Your task to perform on an android device: Open Reddit.com Image 0: 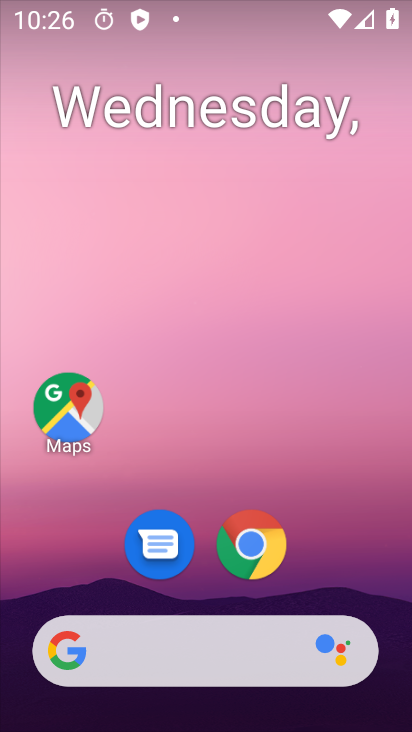
Step 0: drag from (295, 668) to (231, 122)
Your task to perform on an android device: Open Reddit.com Image 1: 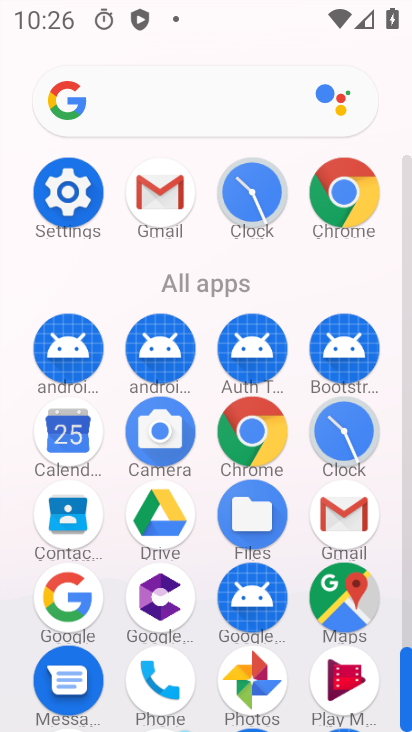
Step 1: click (333, 195)
Your task to perform on an android device: Open Reddit.com Image 2: 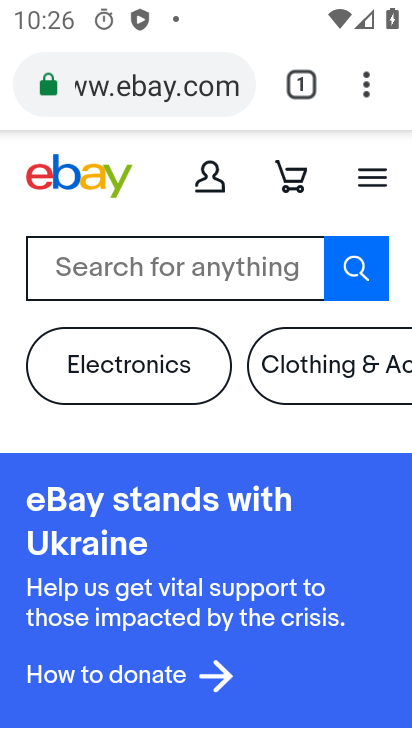
Step 2: click (173, 105)
Your task to perform on an android device: Open Reddit.com Image 3: 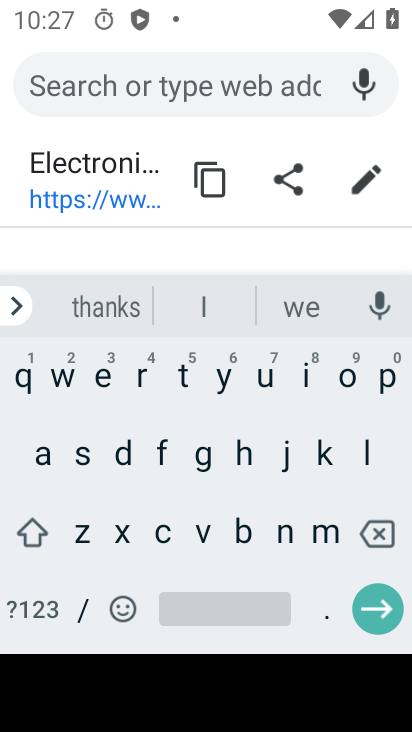
Step 3: click (143, 371)
Your task to perform on an android device: Open Reddit.com Image 4: 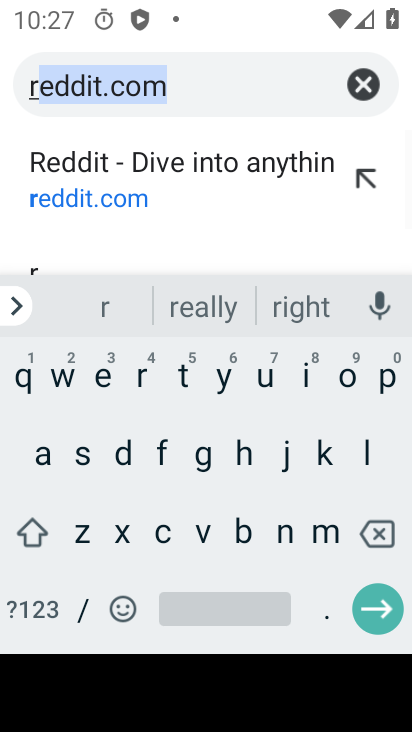
Step 4: click (217, 97)
Your task to perform on an android device: Open Reddit.com Image 5: 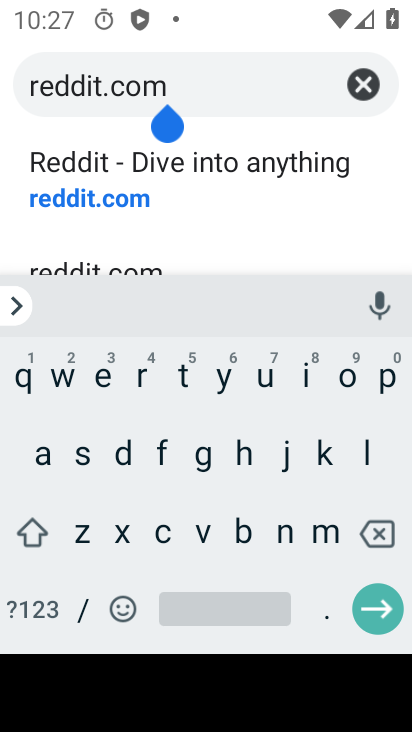
Step 5: click (385, 610)
Your task to perform on an android device: Open Reddit.com Image 6: 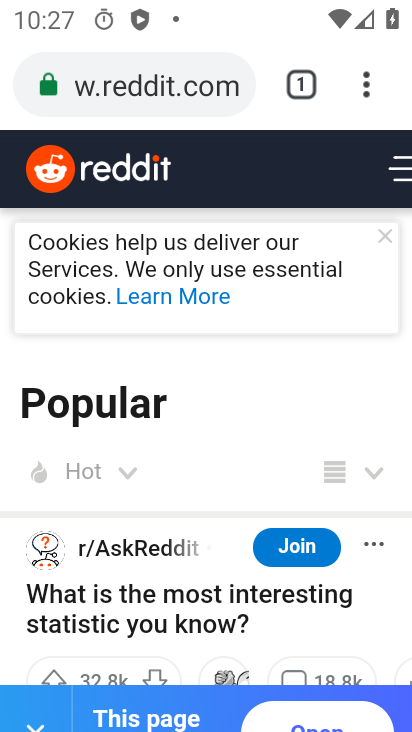
Step 6: task complete